Your task to perform on an android device: Go to Wikipedia Image 0: 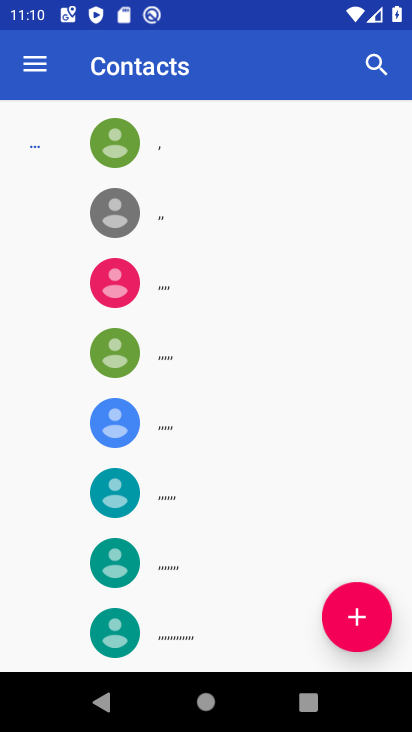
Step 0: press home button
Your task to perform on an android device: Go to Wikipedia Image 1: 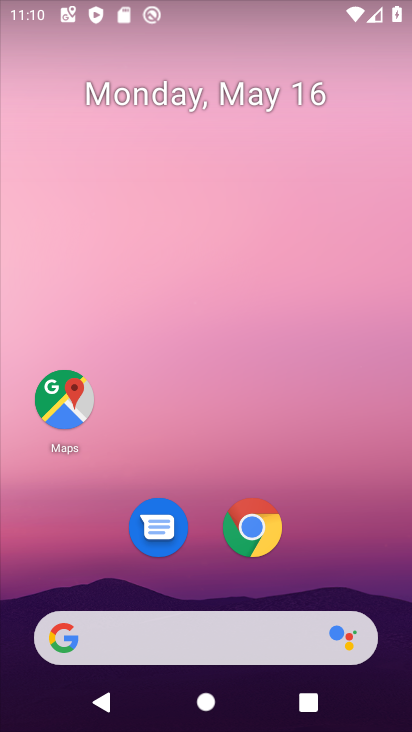
Step 1: drag from (317, 665) to (316, 266)
Your task to perform on an android device: Go to Wikipedia Image 2: 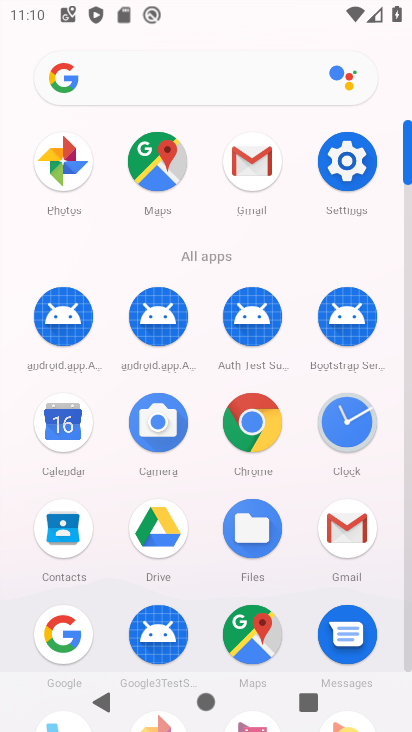
Step 2: click (231, 415)
Your task to perform on an android device: Go to Wikipedia Image 3: 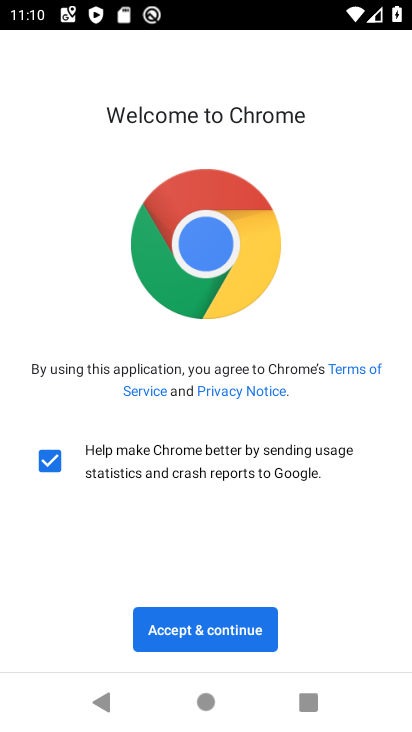
Step 3: click (176, 634)
Your task to perform on an android device: Go to Wikipedia Image 4: 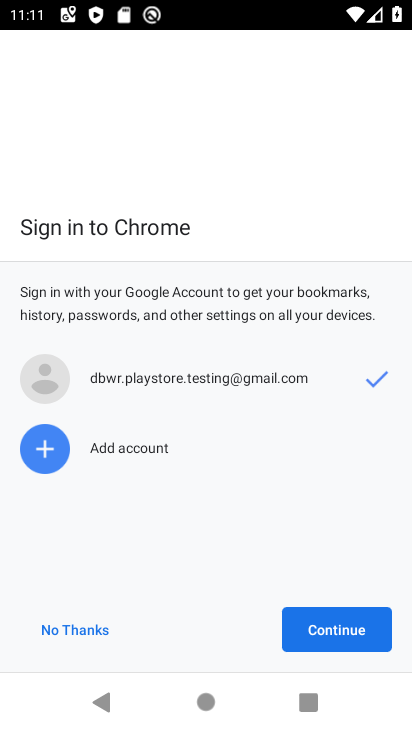
Step 4: click (342, 626)
Your task to perform on an android device: Go to Wikipedia Image 5: 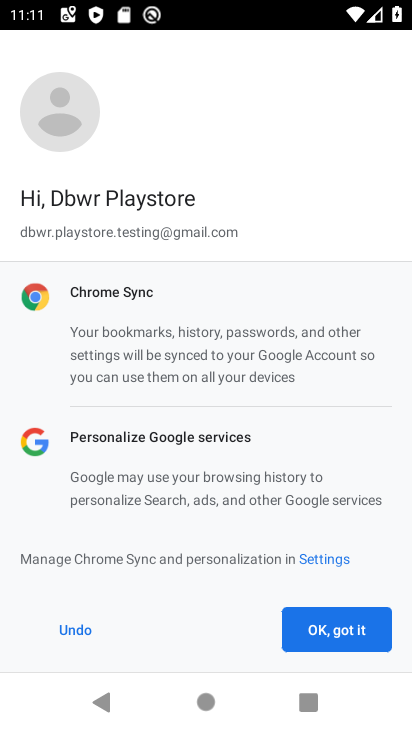
Step 5: click (316, 644)
Your task to perform on an android device: Go to Wikipedia Image 6: 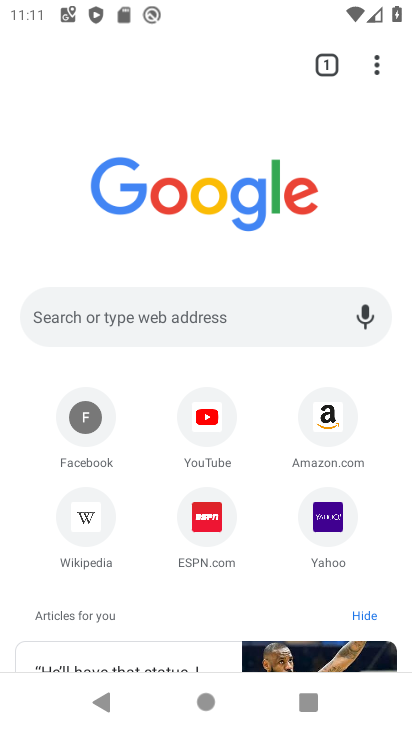
Step 6: click (101, 533)
Your task to perform on an android device: Go to Wikipedia Image 7: 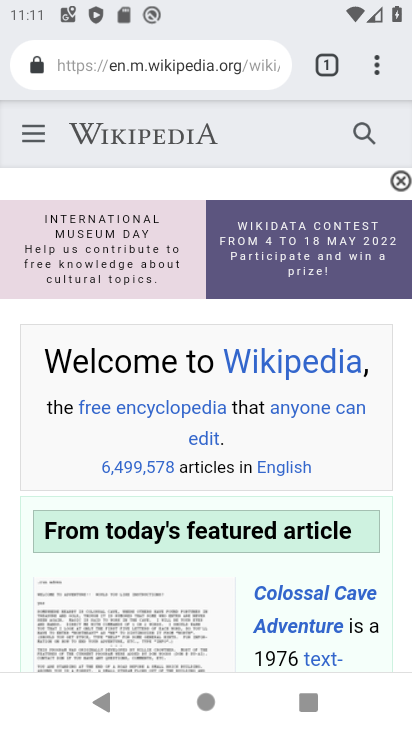
Step 7: task complete